Your task to perform on an android device: Go to Maps Image 0: 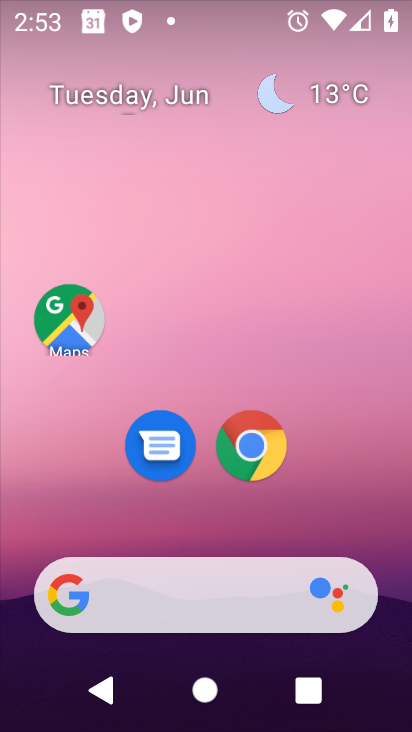
Step 0: click (72, 316)
Your task to perform on an android device: Go to Maps Image 1: 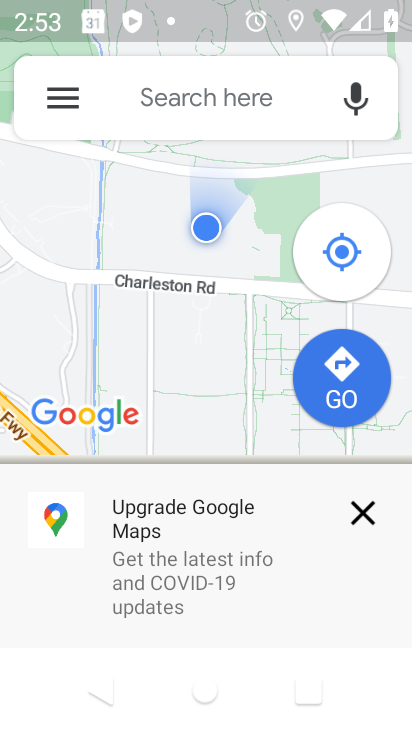
Step 1: click (363, 511)
Your task to perform on an android device: Go to Maps Image 2: 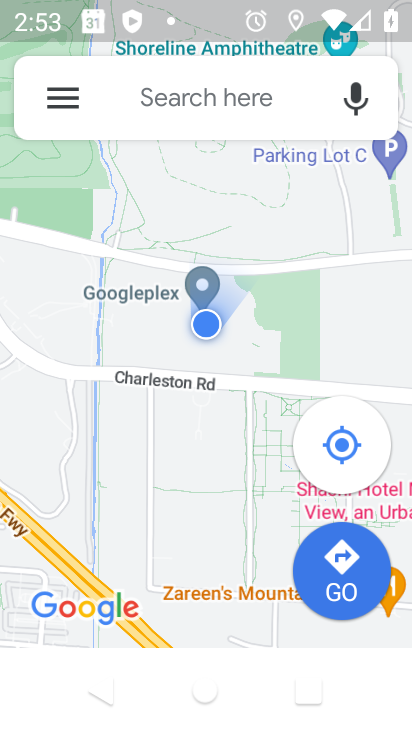
Step 2: task complete